Your task to perform on an android device: turn off sleep mode Image 0: 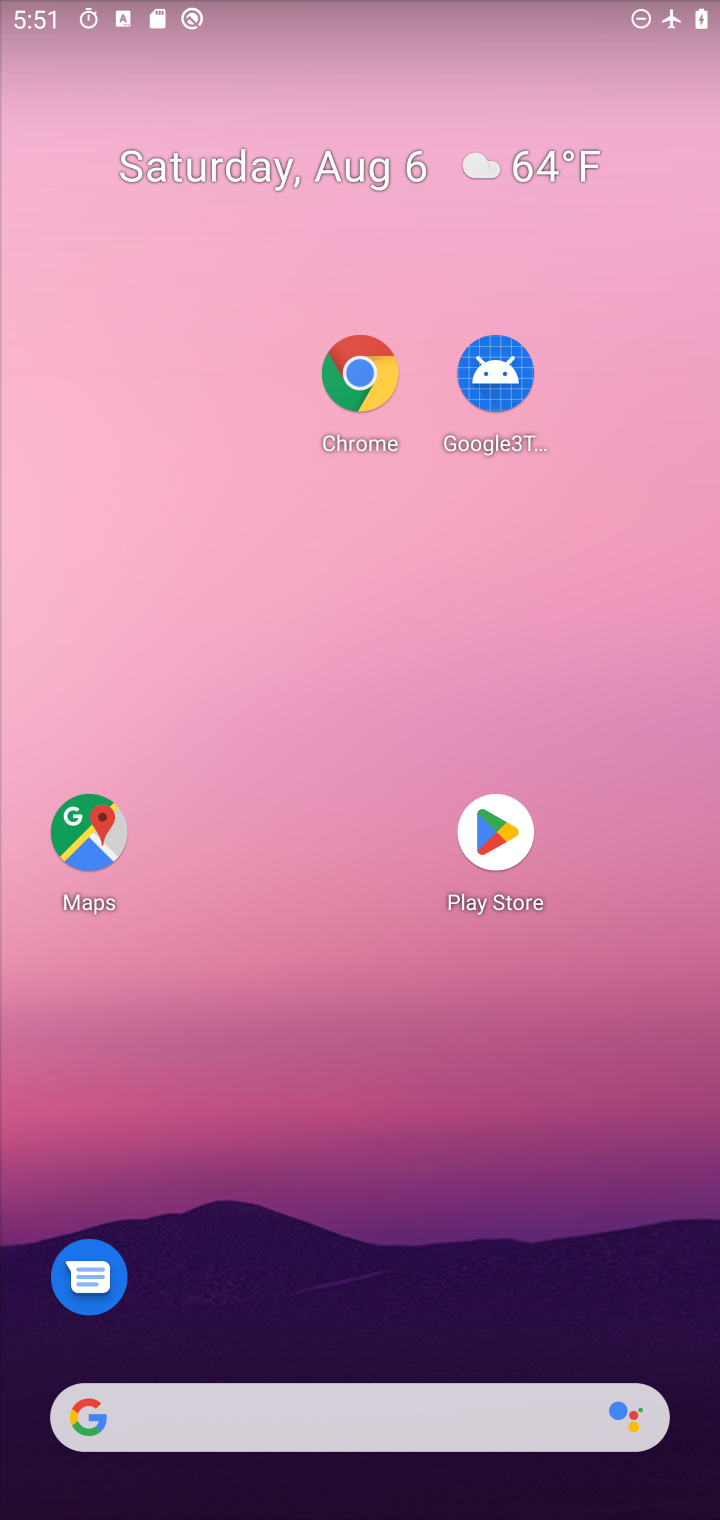
Step 0: drag from (404, 1392) to (524, 60)
Your task to perform on an android device: turn off sleep mode Image 1: 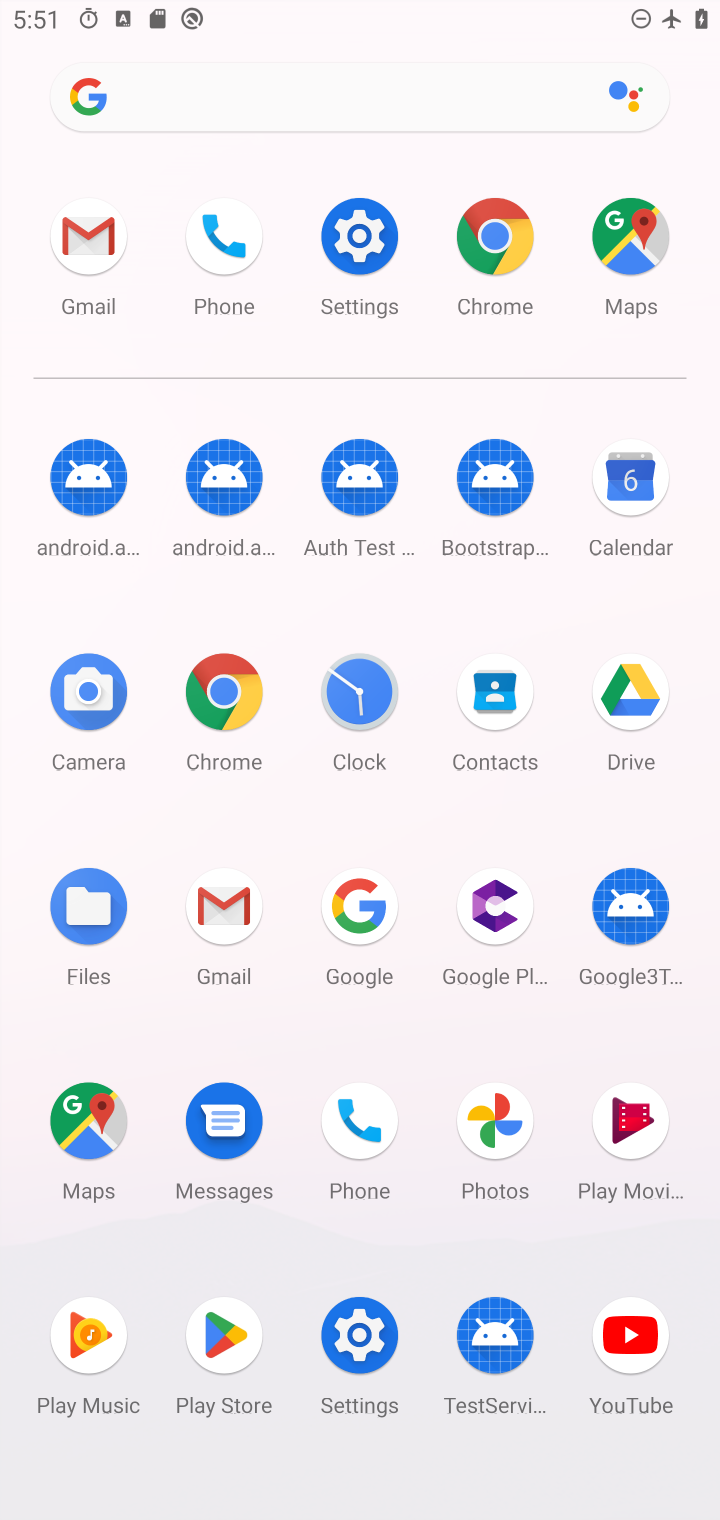
Step 1: click (353, 272)
Your task to perform on an android device: turn off sleep mode Image 2: 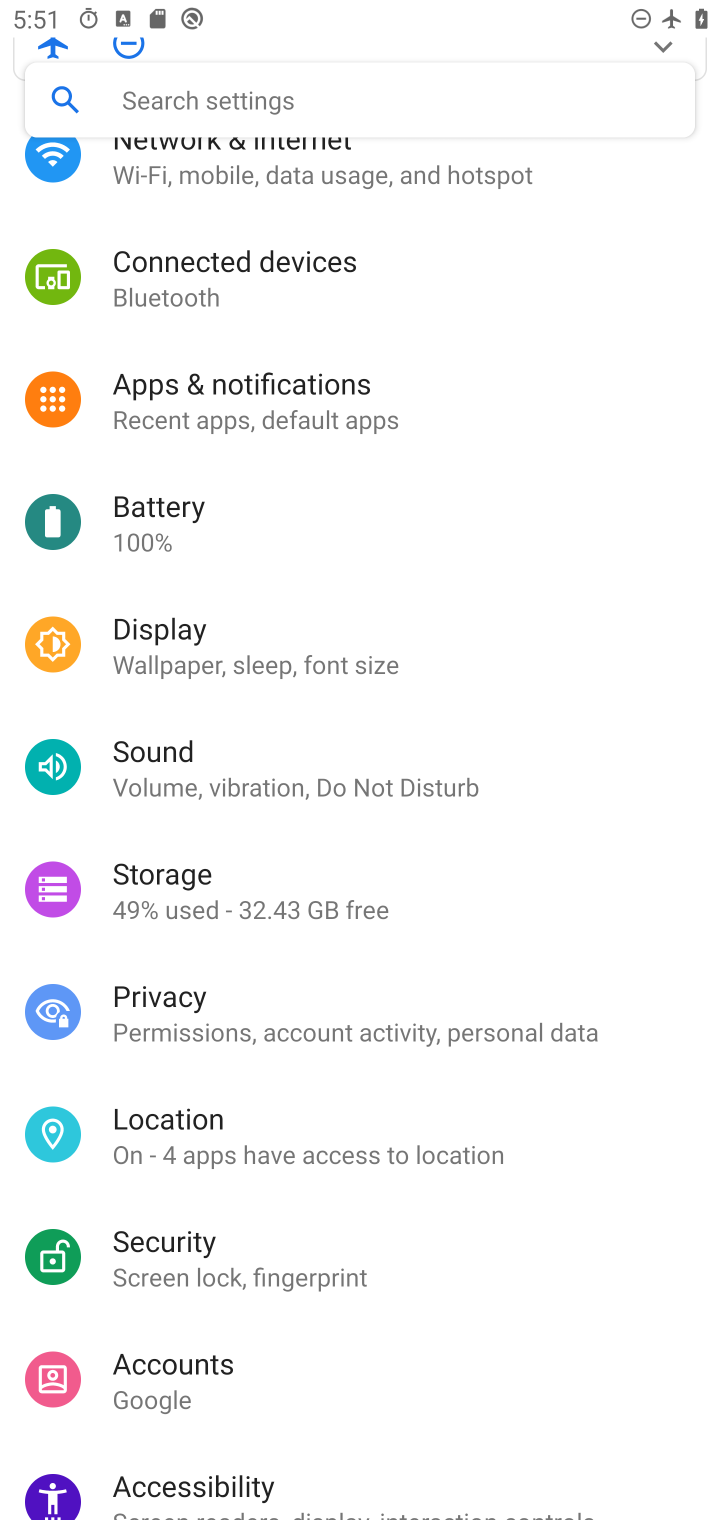
Step 2: click (326, 682)
Your task to perform on an android device: turn off sleep mode Image 3: 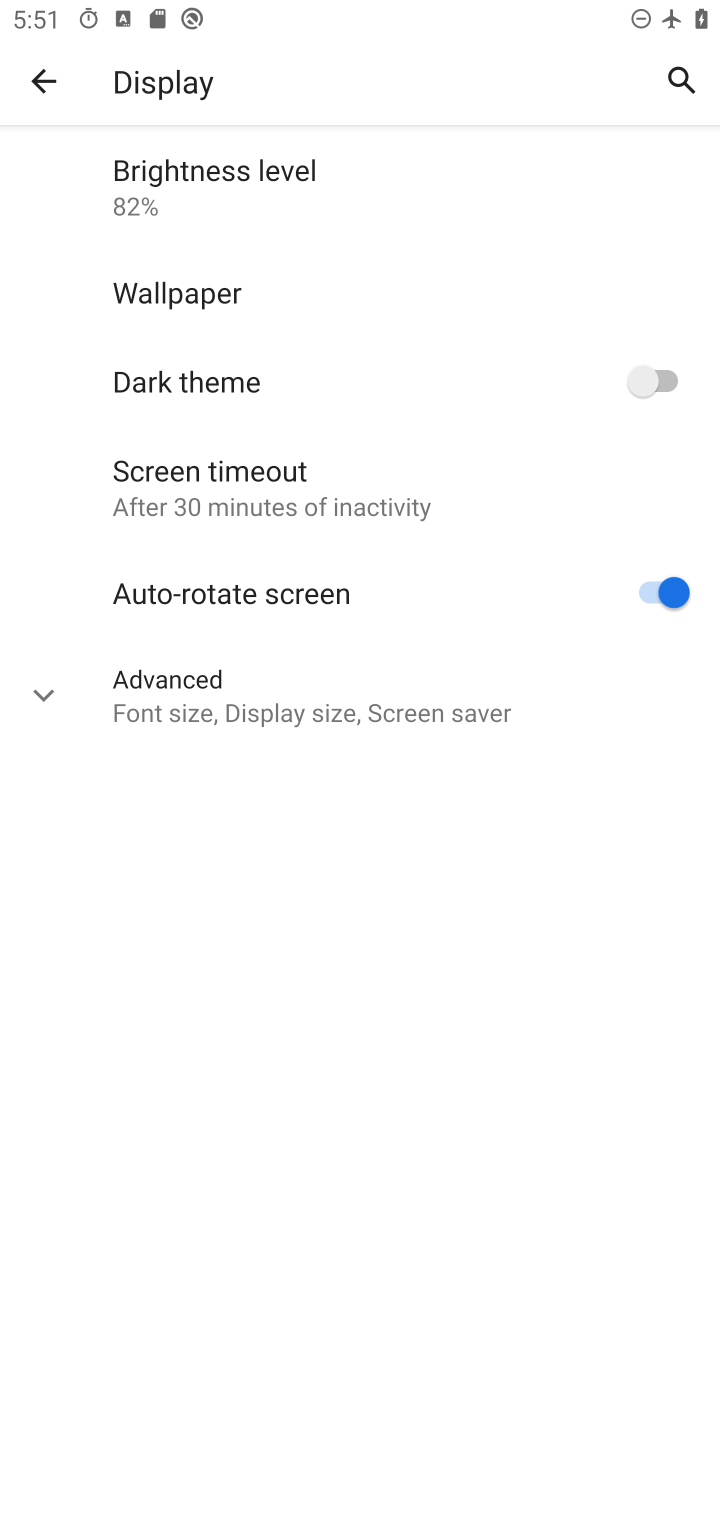
Step 3: task complete